Your task to perform on an android device: turn on wifi Image 0: 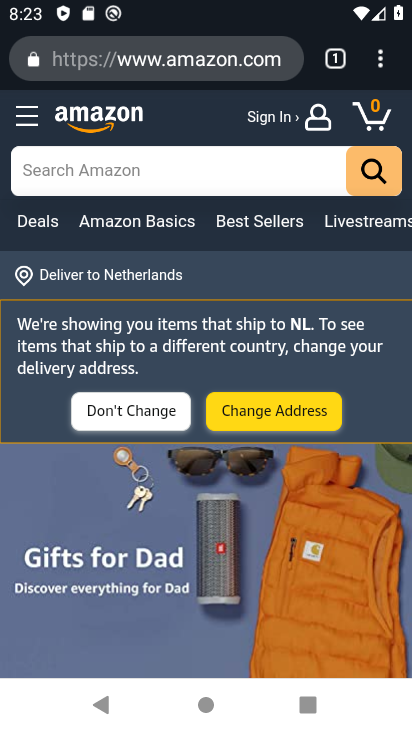
Step 0: press home button
Your task to perform on an android device: turn on wifi Image 1: 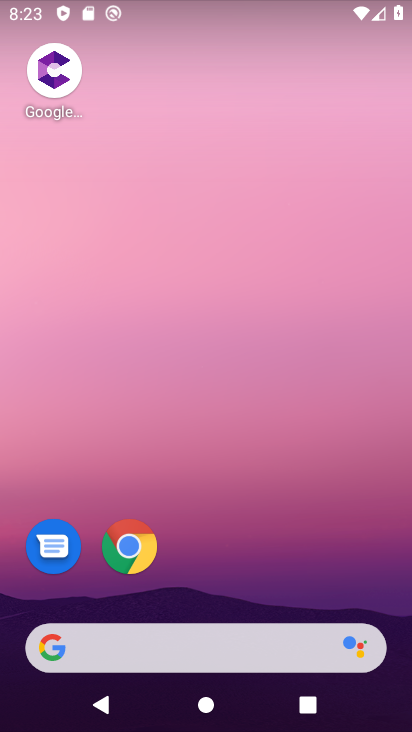
Step 1: drag from (399, 692) to (255, 35)
Your task to perform on an android device: turn on wifi Image 2: 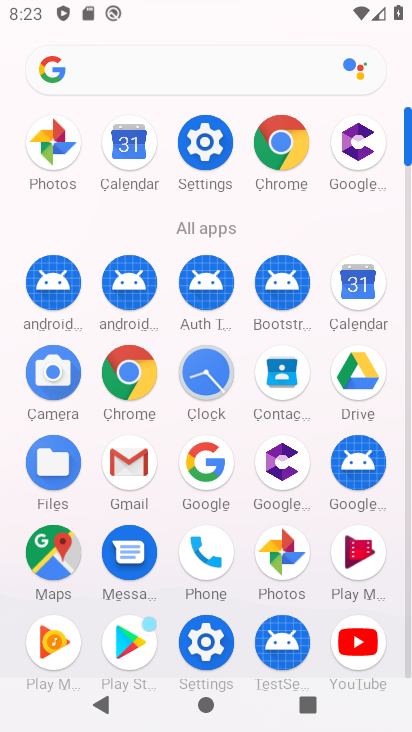
Step 2: click (218, 160)
Your task to perform on an android device: turn on wifi Image 3: 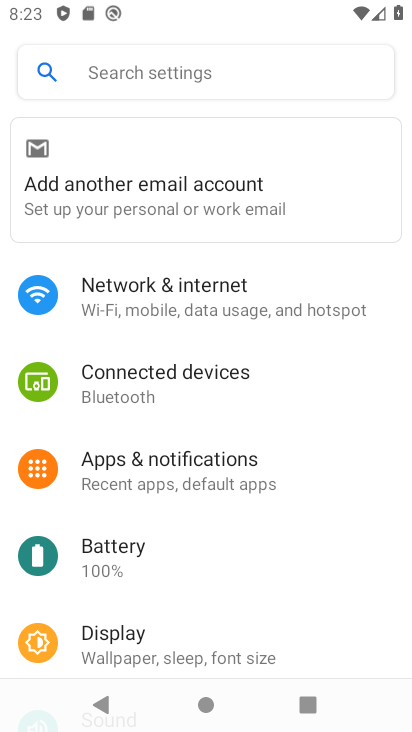
Step 3: click (173, 310)
Your task to perform on an android device: turn on wifi Image 4: 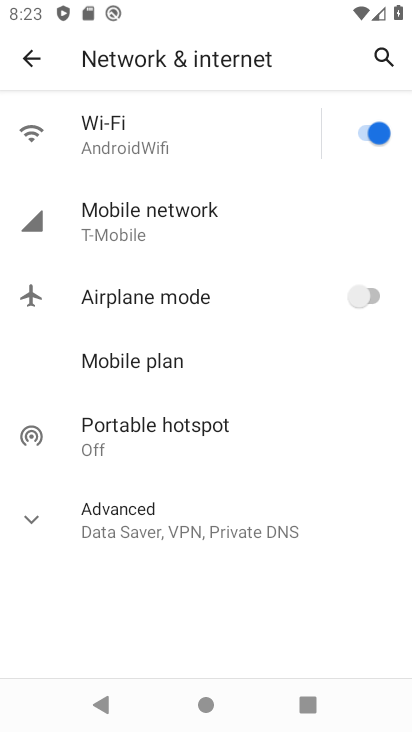
Step 4: task complete